Your task to perform on an android device: turn on the 24-hour format for clock Image 0: 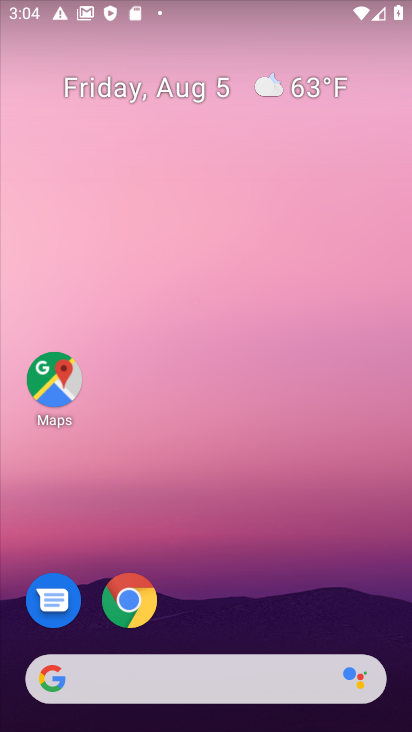
Step 0: drag from (213, 690) to (262, 99)
Your task to perform on an android device: turn on the 24-hour format for clock Image 1: 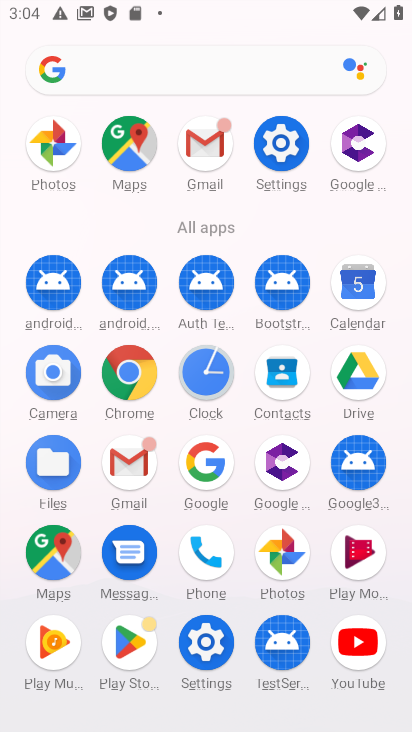
Step 1: click (208, 373)
Your task to perform on an android device: turn on the 24-hour format for clock Image 2: 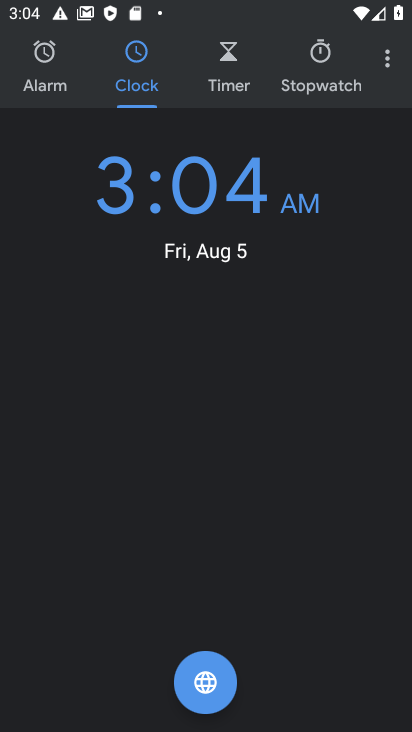
Step 2: click (387, 55)
Your task to perform on an android device: turn on the 24-hour format for clock Image 3: 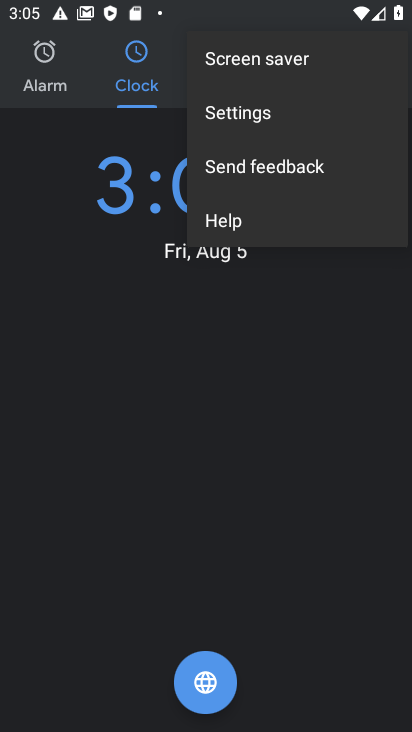
Step 3: click (264, 121)
Your task to perform on an android device: turn on the 24-hour format for clock Image 4: 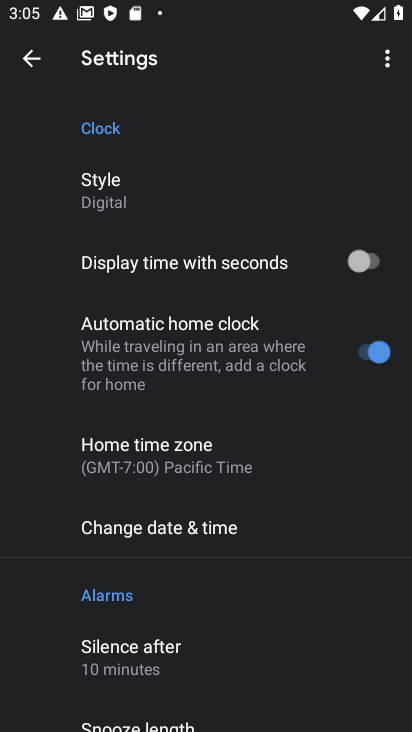
Step 4: click (160, 528)
Your task to perform on an android device: turn on the 24-hour format for clock Image 5: 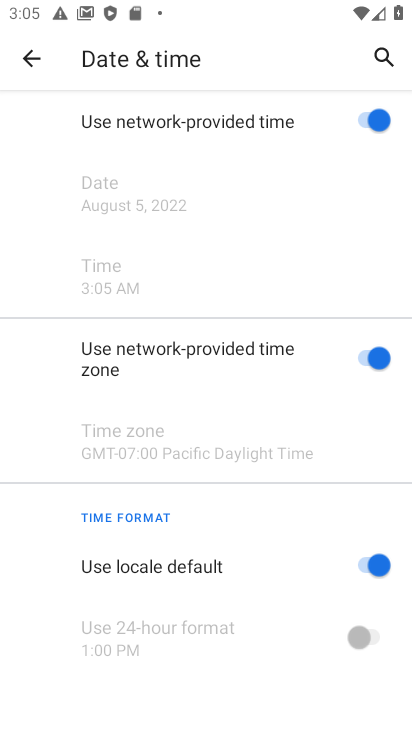
Step 5: click (366, 569)
Your task to perform on an android device: turn on the 24-hour format for clock Image 6: 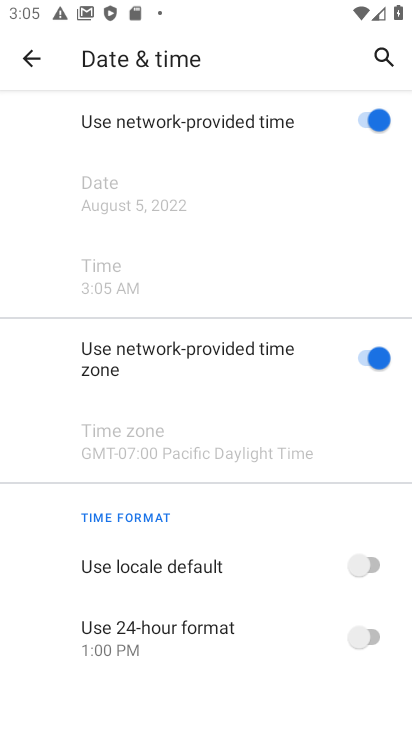
Step 6: click (360, 638)
Your task to perform on an android device: turn on the 24-hour format for clock Image 7: 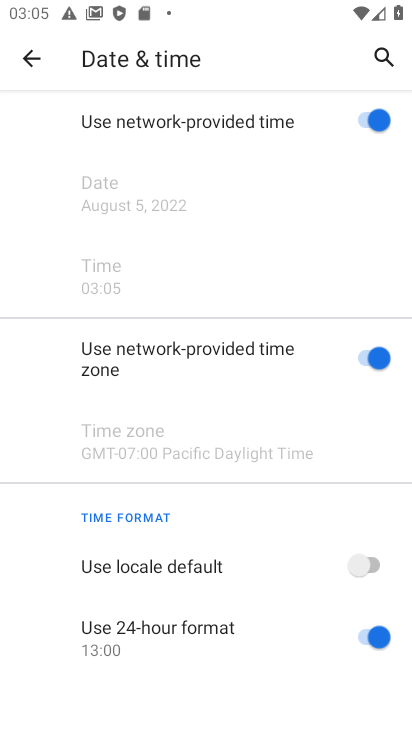
Step 7: task complete